Your task to perform on an android device: Open Reddit.com Image 0: 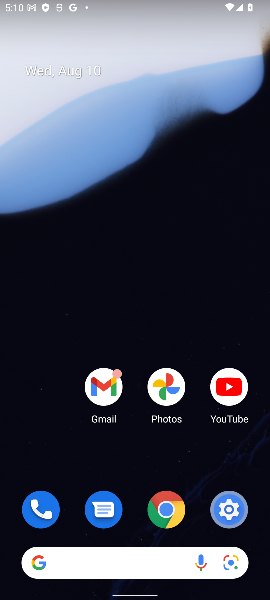
Step 0: drag from (145, 454) to (209, 45)
Your task to perform on an android device: Open Reddit.com Image 1: 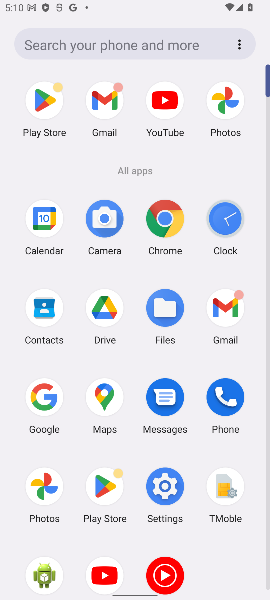
Step 1: click (167, 218)
Your task to perform on an android device: Open Reddit.com Image 2: 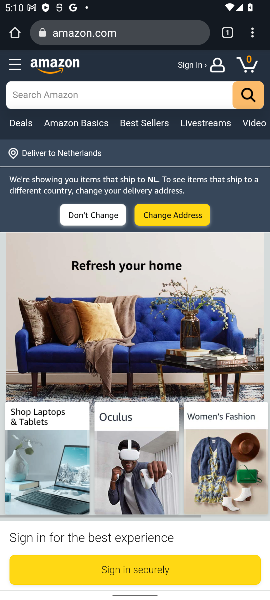
Step 2: click (125, 31)
Your task to perform on an android device: Open Reddit.com Image 3: 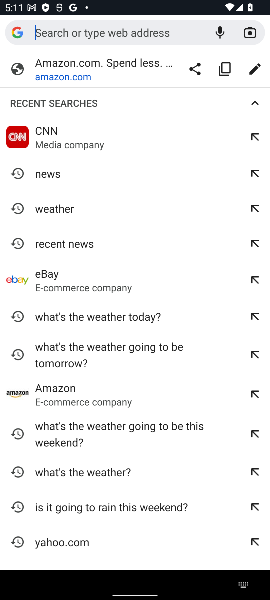
Step 3: type "reddit.com"
Your task to perform on an android device: Open Reddit.com Image 4: 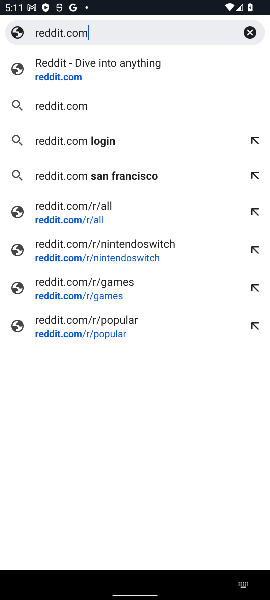
Step 4: click (68, 71)
Your task to perform on an android device: Open Reddit.com Image 5: 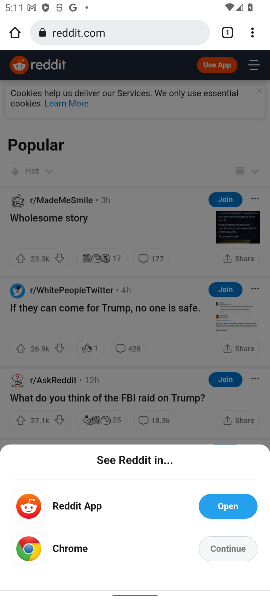
Step 5: task complete